Your task to perform on an android device: allow notifications from all sites in the chrome app Image 0: 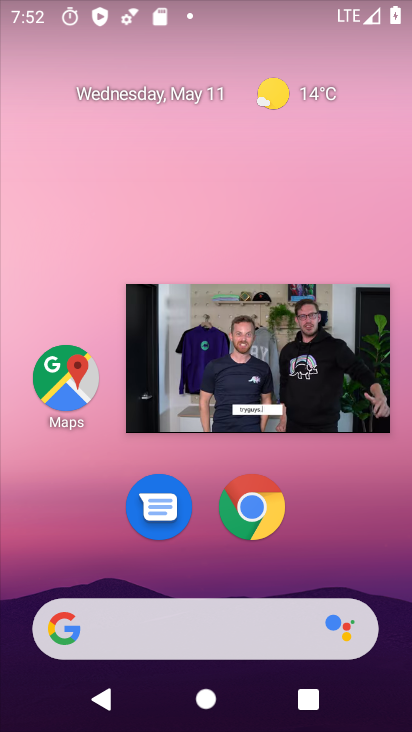
Step 0: click (379, 308)
Your task to perform on an android device: allow notifications from all sites in the chrome app Image 1: 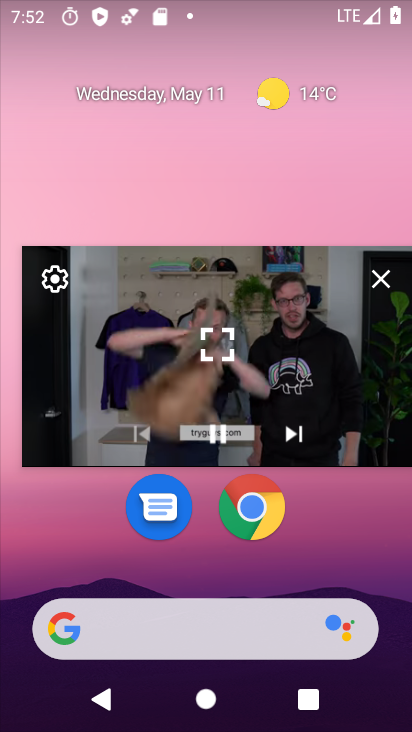
Step 1: click (391, 289)
Your task to perform on an android device: allow notifications from all sites in the chrome app Image 2: 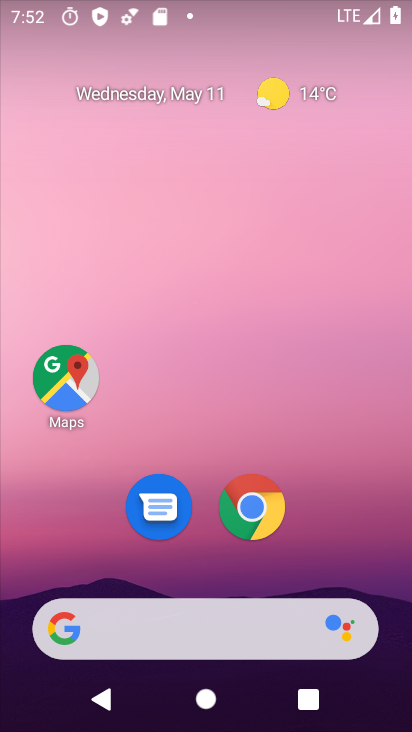
Step 2: drag from (347, 523) to (311, 39)
Your task to perform on an android device: allow notifications from all sites in the chrome app Image 3: 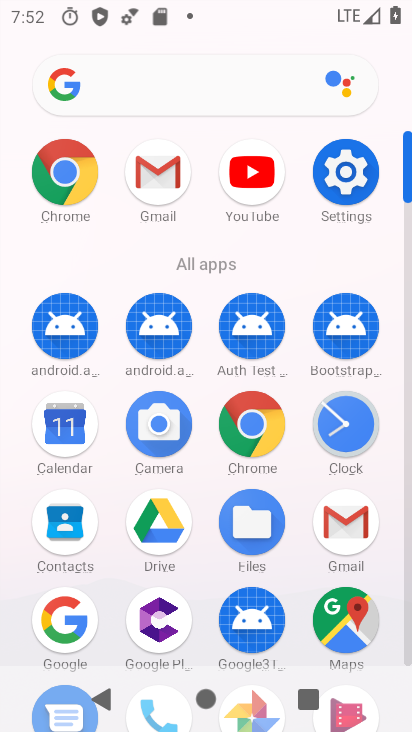
Step 3: click (65, 181)
Your task to perform on an android device: allow notifications from all sites in the chrome app Image 4: 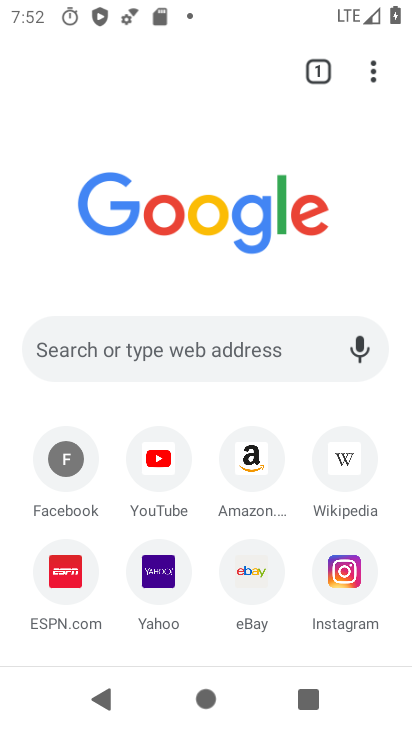
Step 4: drag from (380, 82) to (109, 511)
Your task to perform on an android device: allow notifications from all sites in the chrome app Image 5: 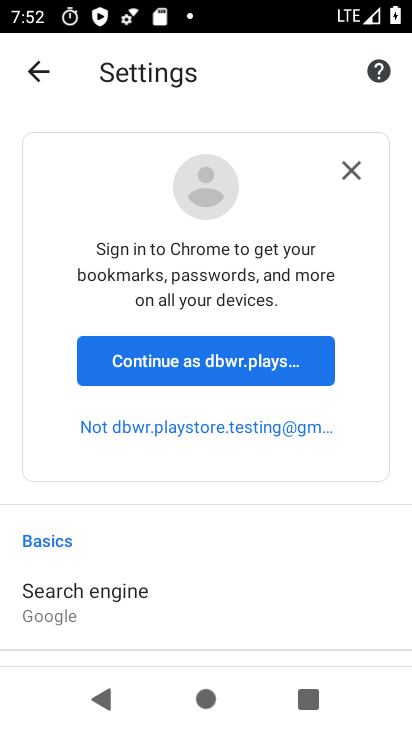
Step 5: click (238, 377)
Your task to perform on an android device: allow notifications from all sites in the chrome app Image 6: 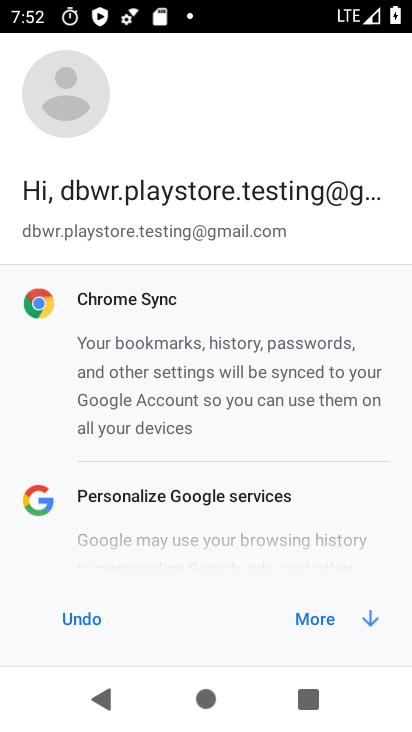
Step 6: click (324, 615)
Your task to perform on an android device: allow notifications from all sites in the chrome app Image 7: 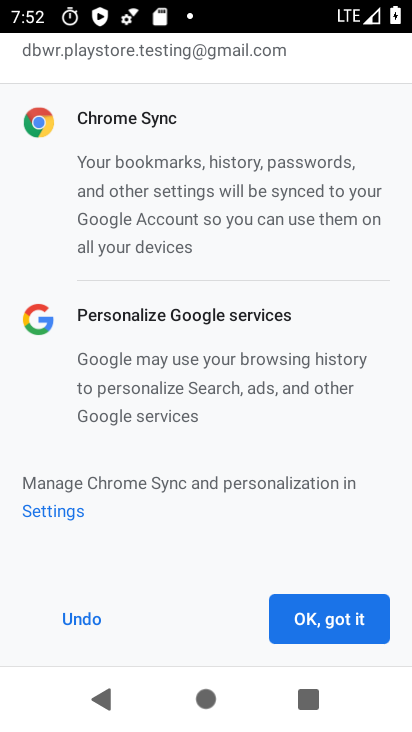
Step 7: click (324, 614)
Your task to perform on an android device: allow notifications from all sites in the chrome app Image 8: 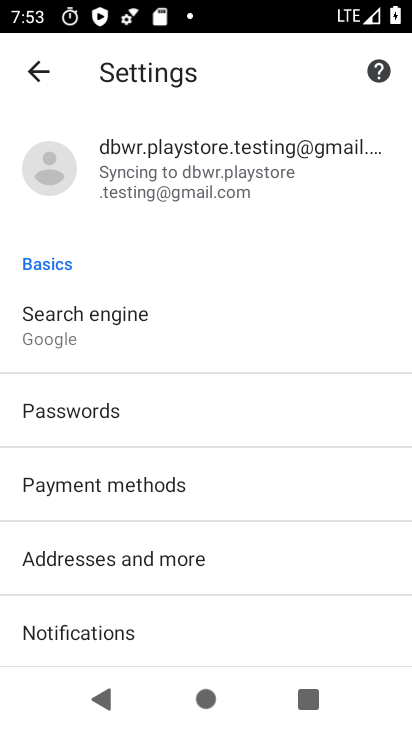
Step 8: drag from (158, 568) to (296, 171)
Your task to perform on an android device: allow notifications from all sites in the chrome app Image 9: 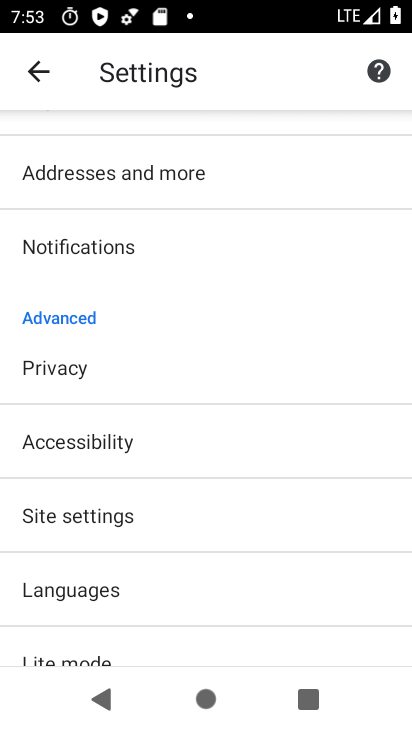
Step 9: click (117, 514)
Your task to perform on an android device: allow notifications from all sites in the chrome app Image 10: 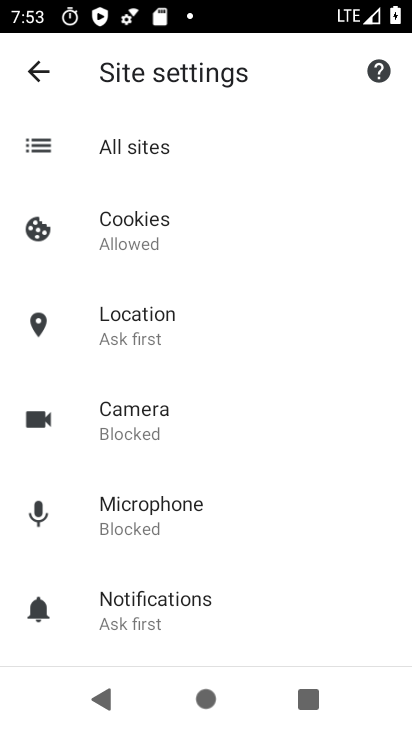
Step 10: click (153, 596)
Your task to perform on an android device: allow notifications from all sites in the chrome app Image 11: 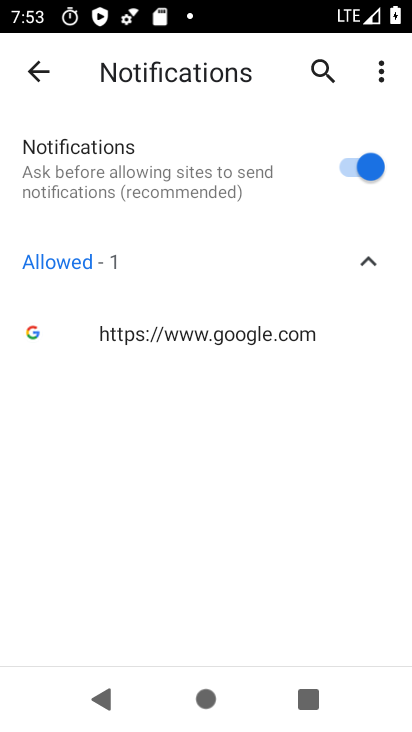
Step 11: task complete